Your task to perform on an android device: Open Youtube and go to "Your channel" Image 0: 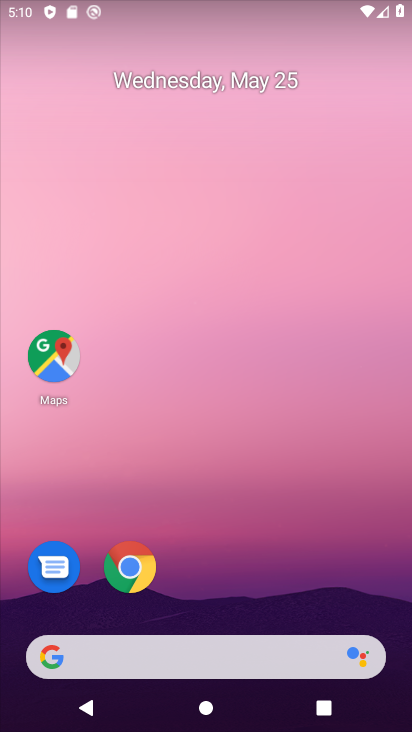
Step 0: drag from (275, 550) to (255, 20)
Your task to perform on an android device: Open Youtube and go to "Your channel" Image 1: 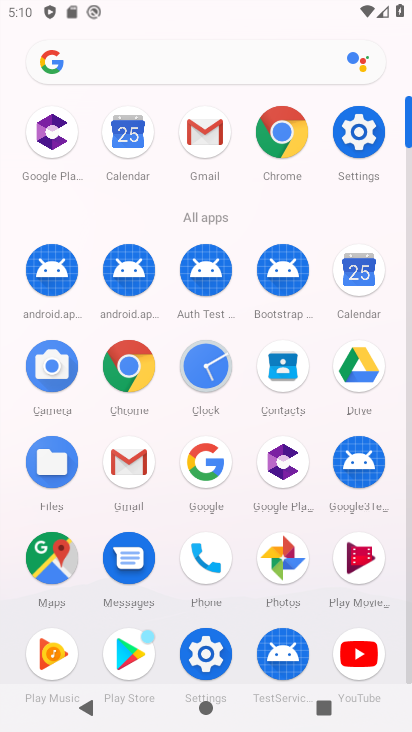
Step 1: drag from (0, 564) to (29, 220)
Your task to perform on an android device: Open Youtube and go to "Your channel" Image 2: 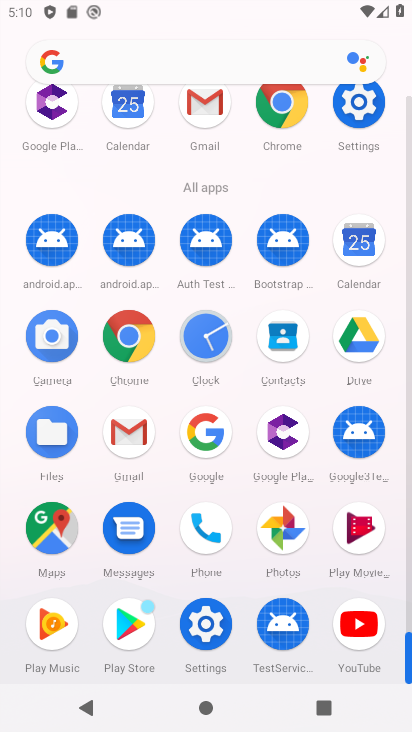
Step 2: click (357, 621)
Your task to perform on an android device: Open Youtube and go to "Your channel" Image 3: 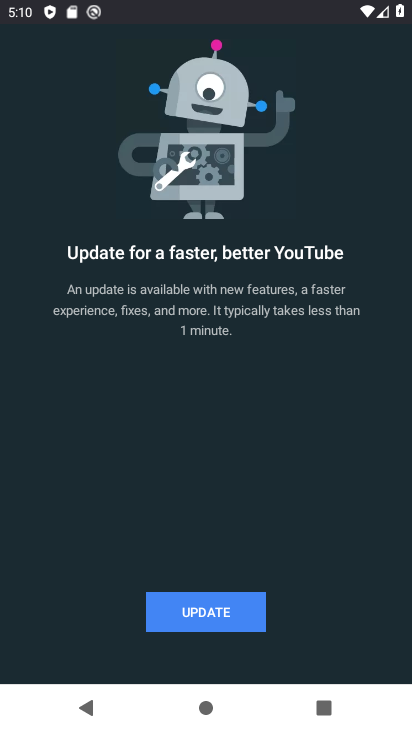
Step 3: click (217, 608)
Your task to perform on an android device: Open Youtube and go to "Your channel" Image 4: 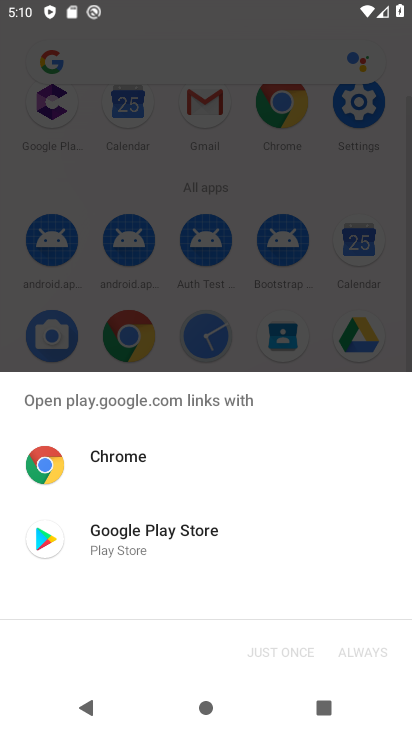
Step 4: click (162, 533)
Your task to perform on an android device: Open Youtube and go to "Your channel" Image 5: 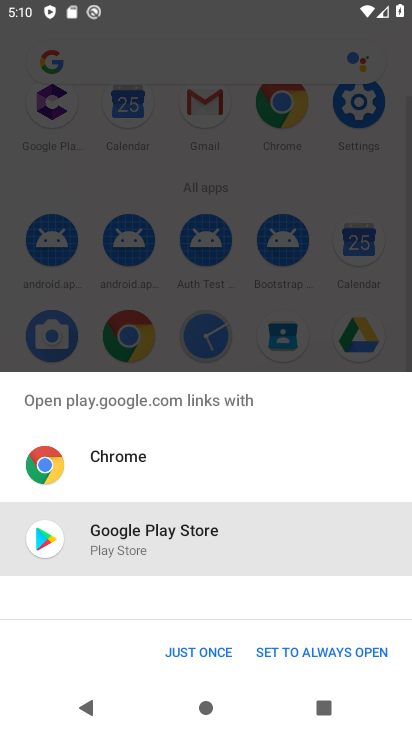
Step 5: click (171, 653)
Your task to perform on an android device: Open Youtube and go to "Your channel" Image 6: 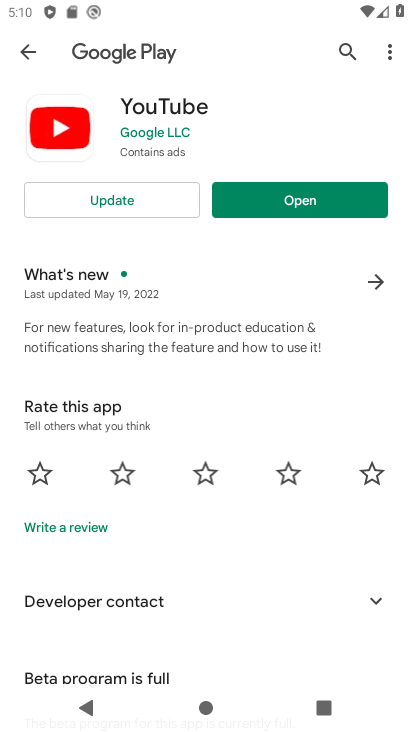
Step 6: click (163, 205)
Your task to perform on an android device: Open Youtube and go to "Your channel" Image 7: 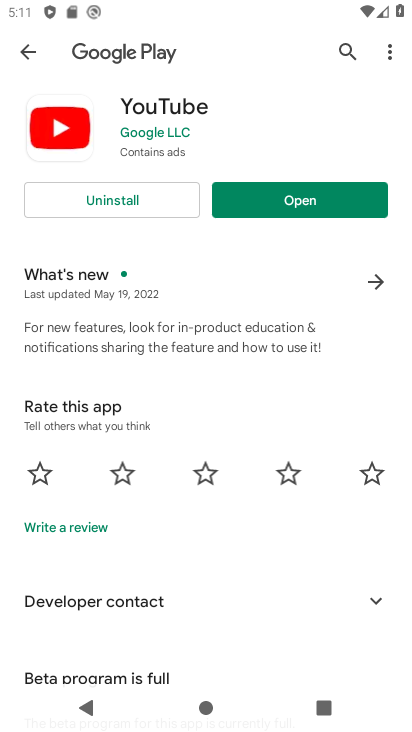
Step 7: click (268, 199)
Your task to perform on an android device: Open Youtube and go to "Your channel" Image 8: 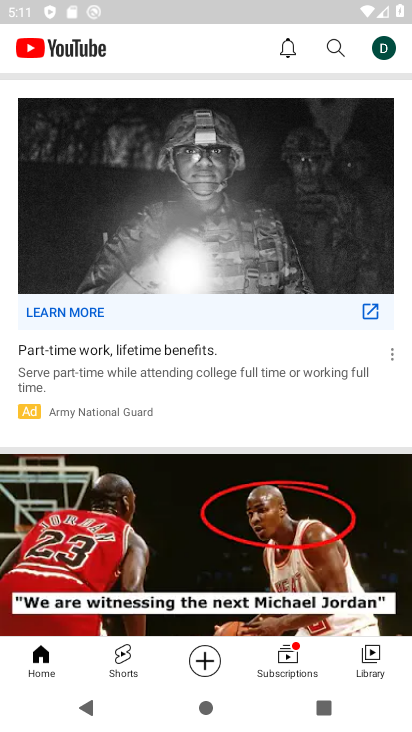
Step 8: click (364, 676)
Your task to perform on an android device: Open Youtube and go to "Your channel" Image 9: 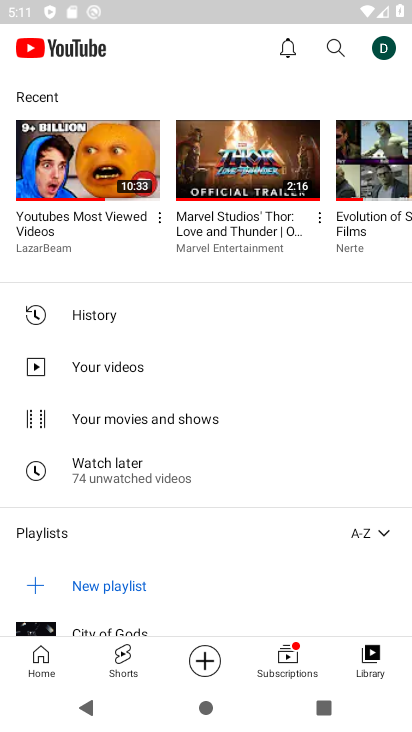
Step 9: click (134, 363)
Your task to perform on an android device: Open Youtube and go to "Your channel" Image 10: 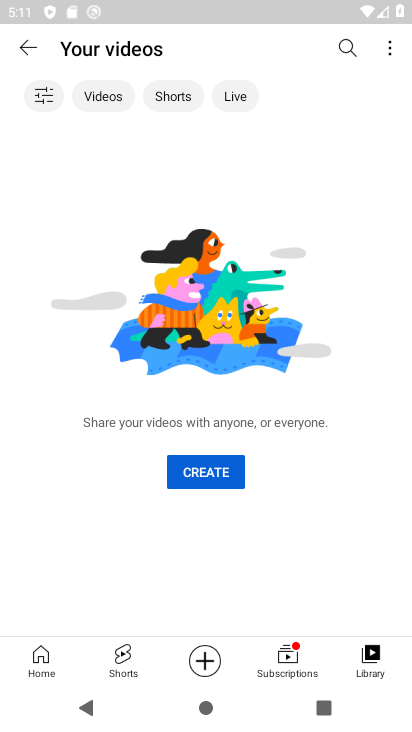
Step 10: task complete